Your task to perform on an android device: choose inbox layout in the gmail app Image 0: 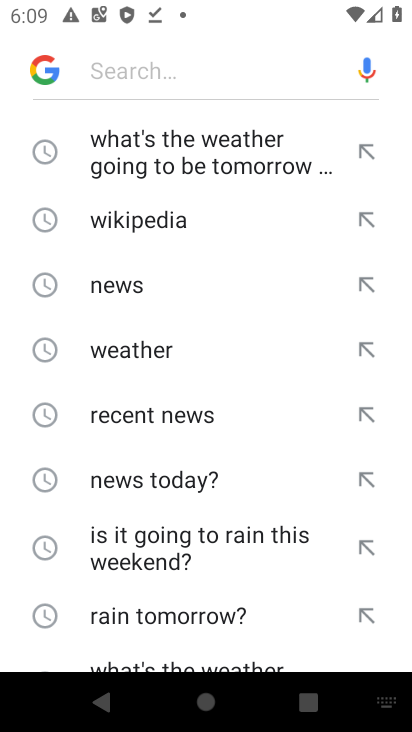
Step 0: press home button
Your task to perform on an android device: choose inbox layout in the gmail app Image 1: 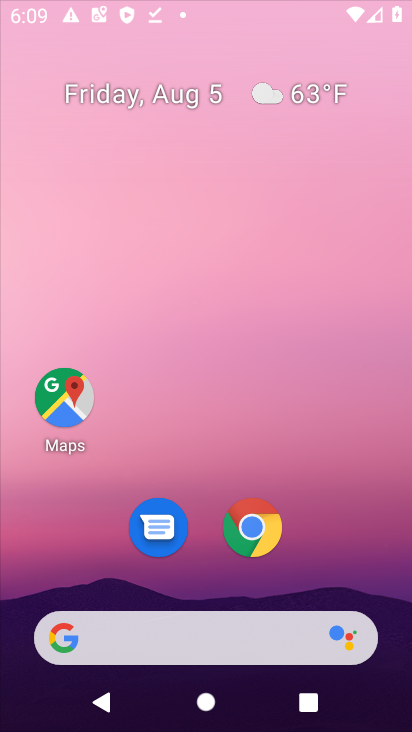
Step 1: drag from (212, 584) to (405, 88)
Your task to perform on an android device: choose inbox layout in the gmail app Image 2: 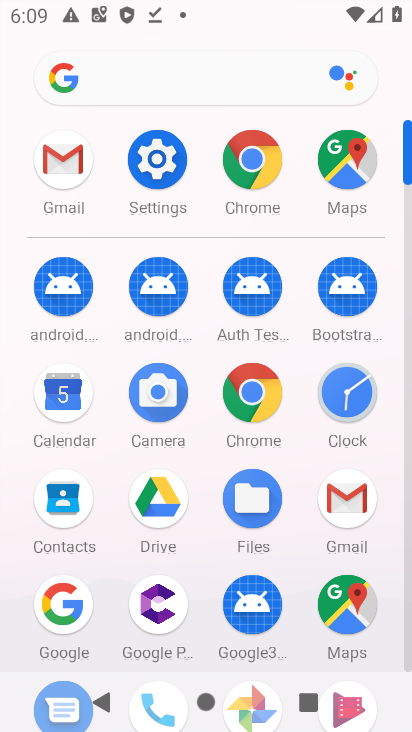
Step 2: click (339, 499)
Your task to perform on an android device: choose inbox layout in the gmail app Image 3: 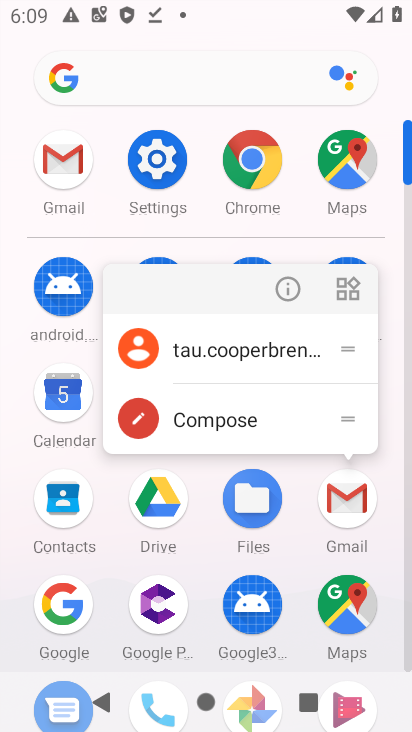
Step 3: click (285, 291)
Your task to perform on an android device: choose inbox layout in the gmail app Image 4: 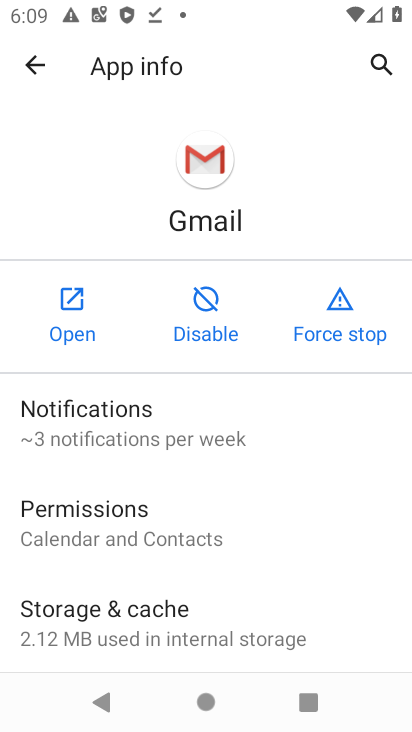
Step 4: click (61, 314)
Your task to perform on an android device: choose inbox layout in the gmail app Image 5: 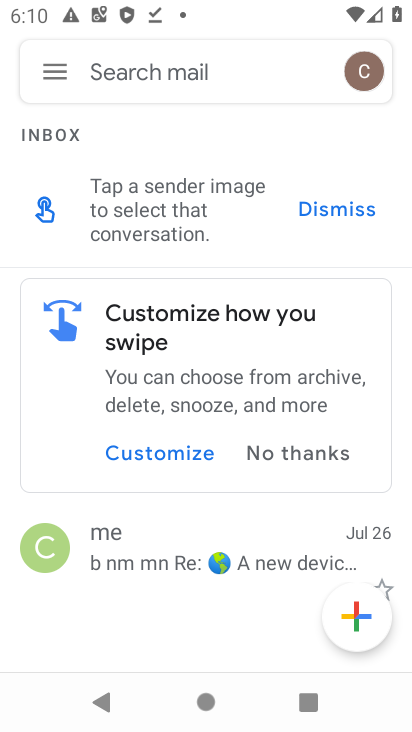
Step 5: drag from (200, 392) to (238, 172)
Your task to perform on an android device: choose inbox layout in the gmail app Image 6: 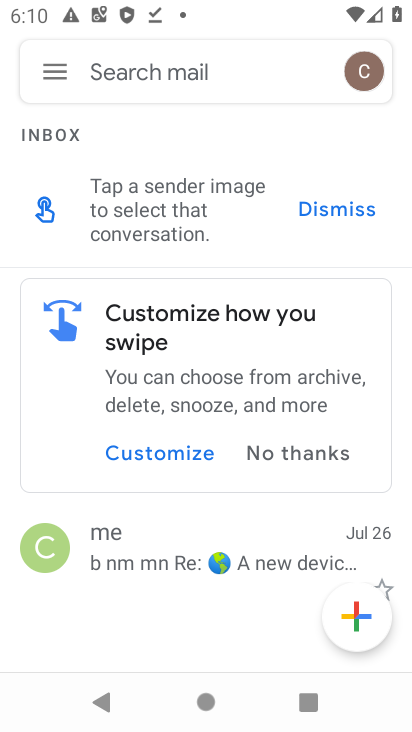
Step 6: drag from (232, 431) to (293, 149)
Your task to perform on an android device: choose inbox layout in the gmail app Image 7: 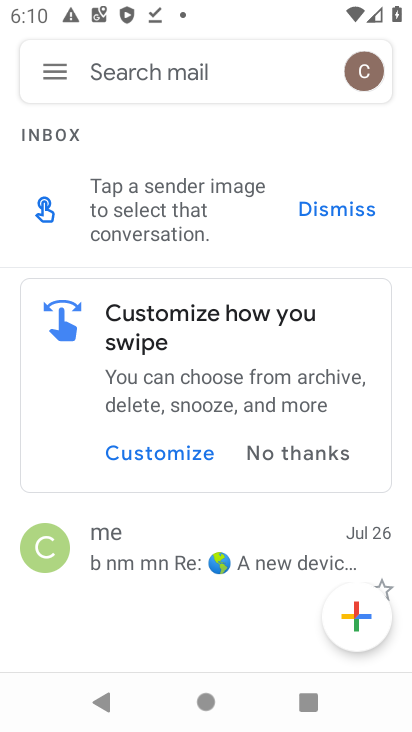
Step 7: click (64, 71)
Your task to perform on an android device: choose inbox layout in the gmail app Image 8: 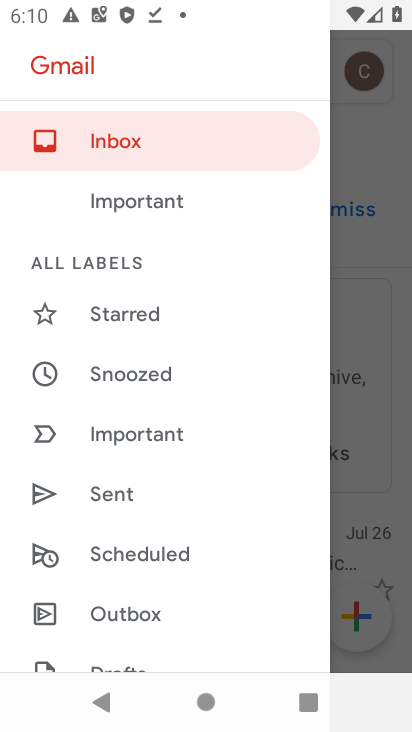
Step 8: click (115, 145)
Your task to perform on an android device: choose inbox layout in the gmail app Image 9: 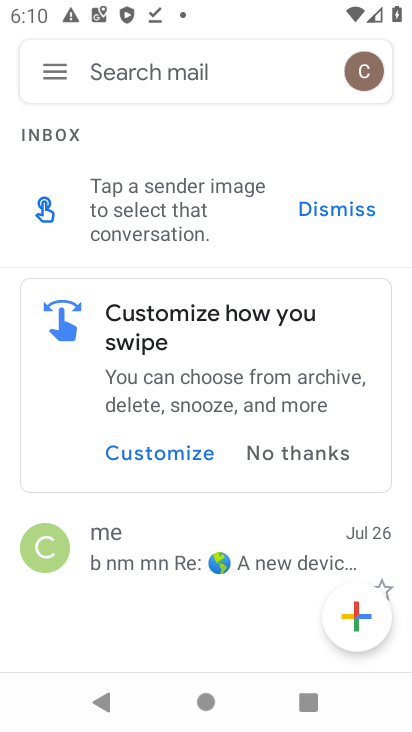
Step 9: task complete